Your task to perform on an android device: Open notification settings Image 0: 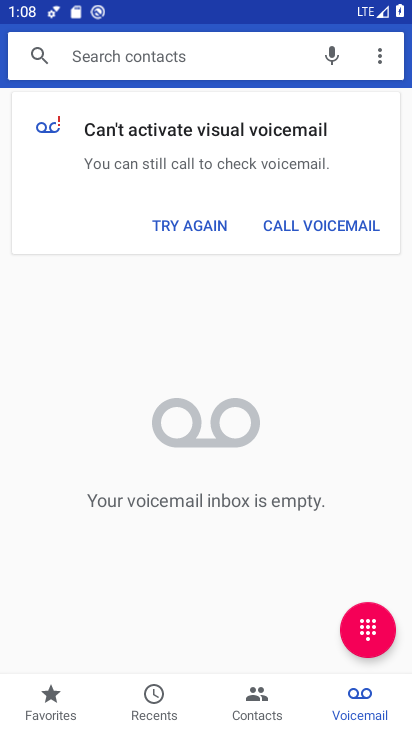
Step 0: press home button
Your task to perform on an android device: Open notification settings Image 1: 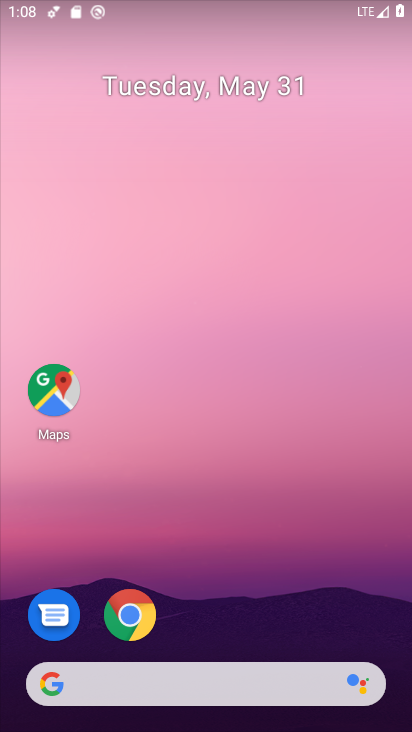
Step 1: drag from (238, 581) to (271, 207)
Your task to perform on an android device: Open notification settings Image 2: 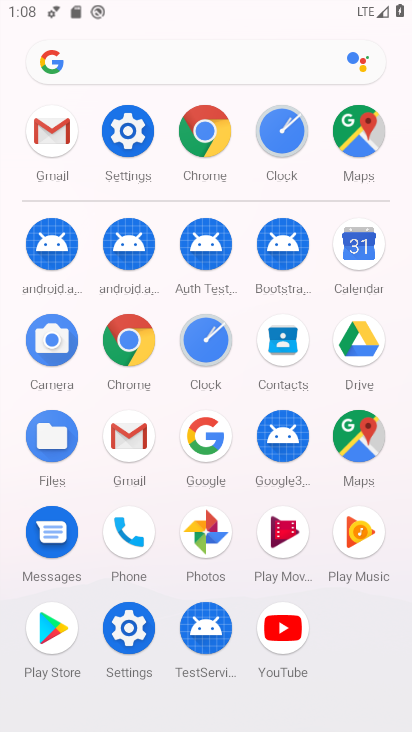
Step 2: click (132, 640)
Your task to perform on an android device: Open notification settings Image 3: 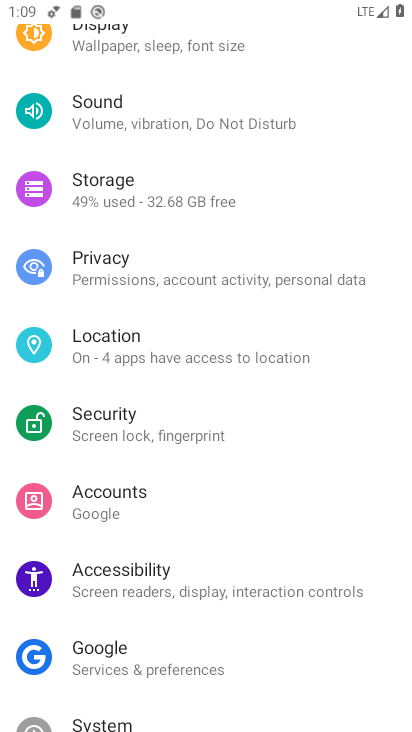
Step 3: drag from (182, 231) to (114, 637)
Your task to perform on an android device: Open notification settings Image 4: 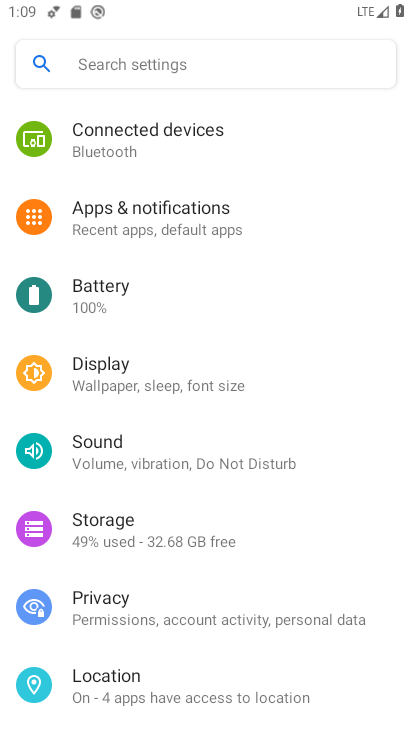
Step 4: click (188, 234)
Your task to perform on an android device: Open notification settings Image 5: 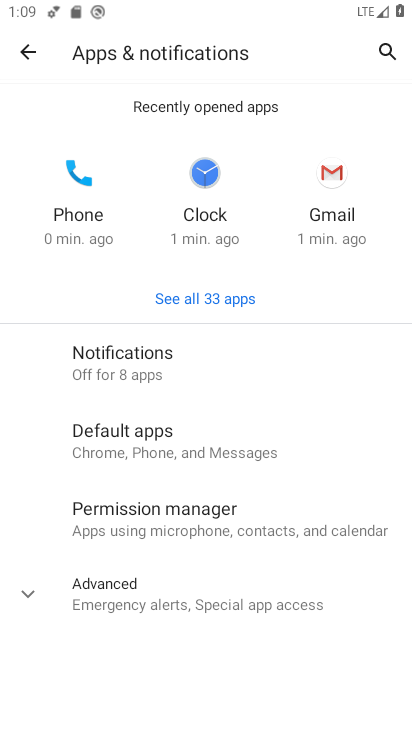
Step 5: click (156, 359)
Your task to perform on an android device: Open notification settings Image 6: 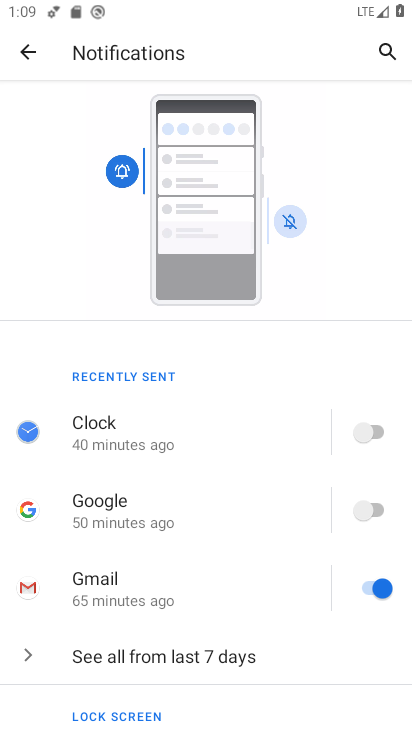
Step 6: task complete